Your task to perform on an android device: Show me recent news Image 0: 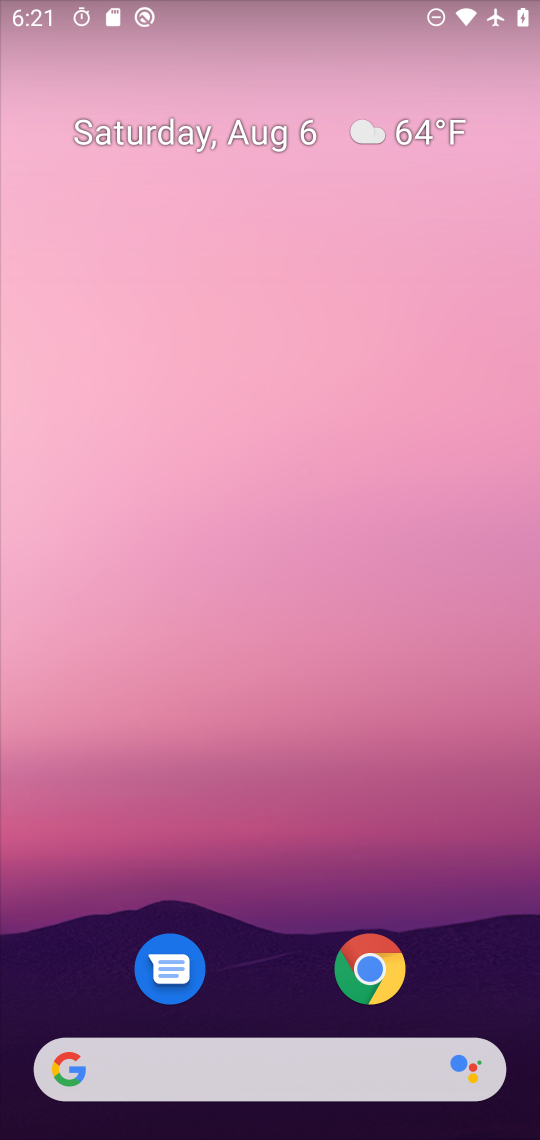
Step 0: press home button
Your task to perform on an android device: Show me recent news Image 1: 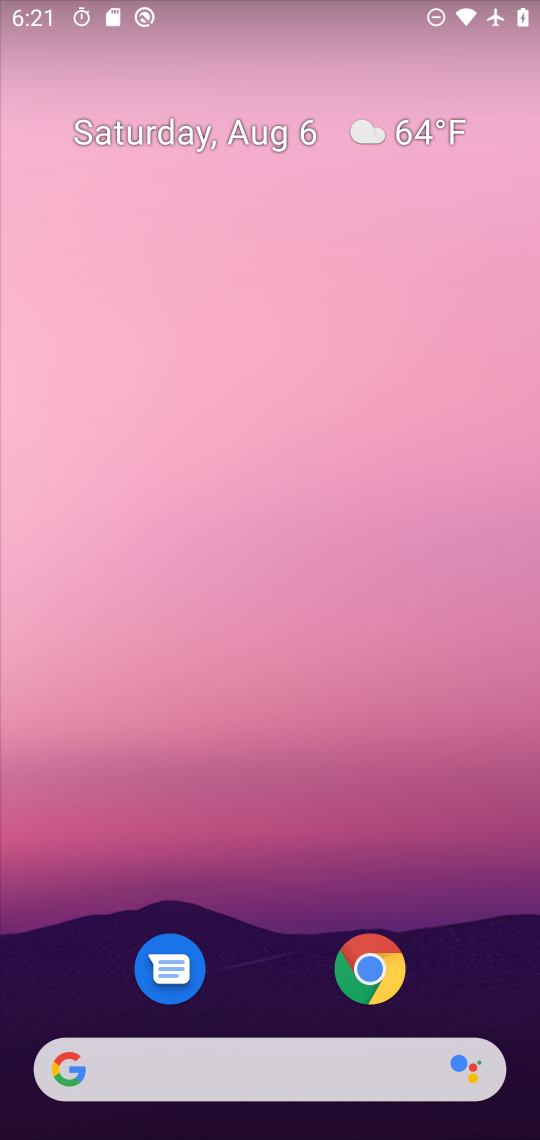
Step 1: click (59, 1068)
Your task to perform on an android device: Show me recent news Image 2: 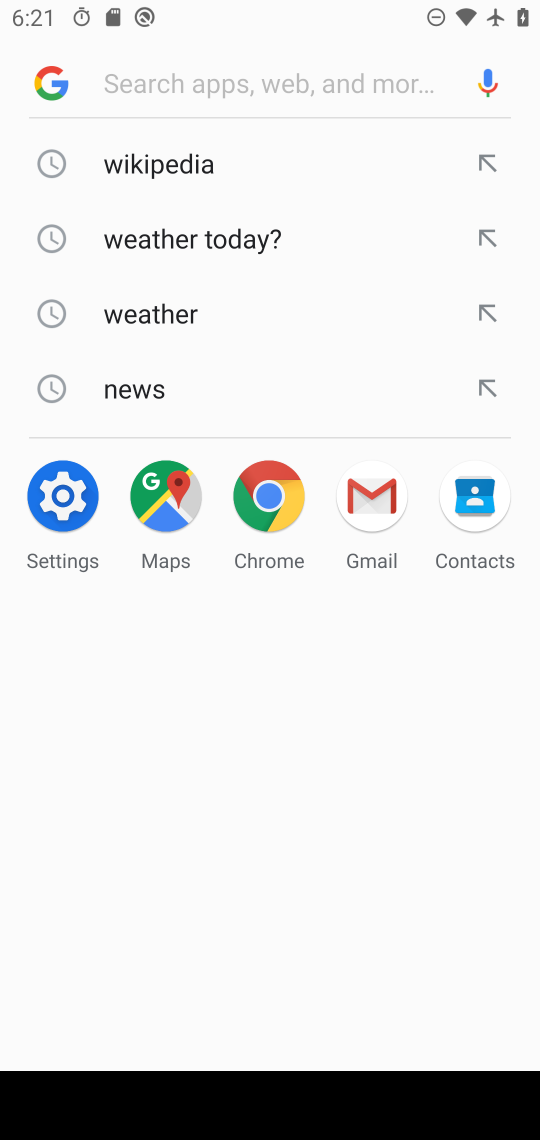
Step 2: type "recent news"
Your task to perform on an android device: Show me recent news Image 3: 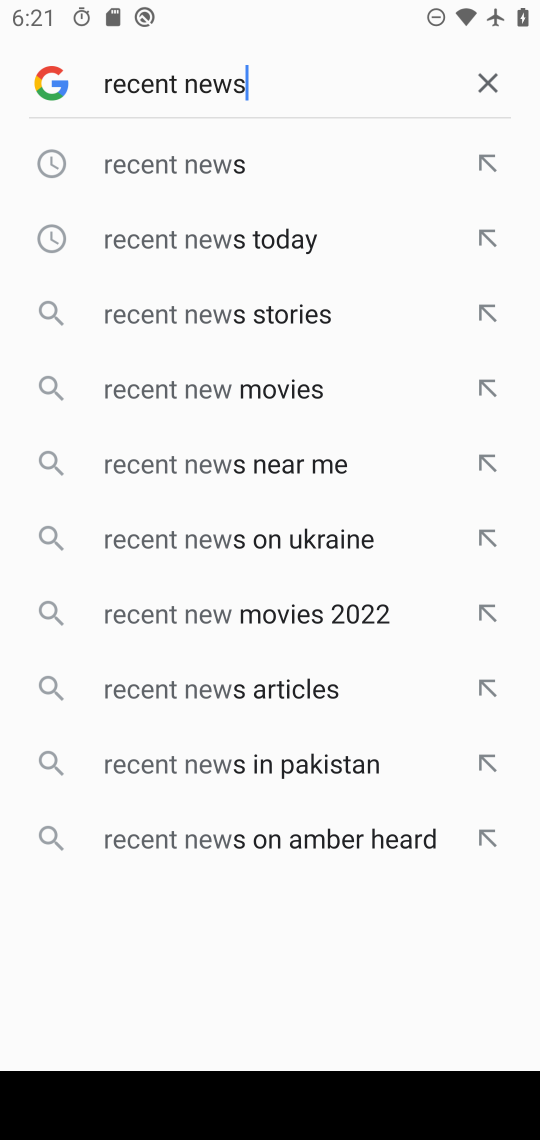
Step 3: press enter
Your task to perform on an android device: Show me recent news Image 4: 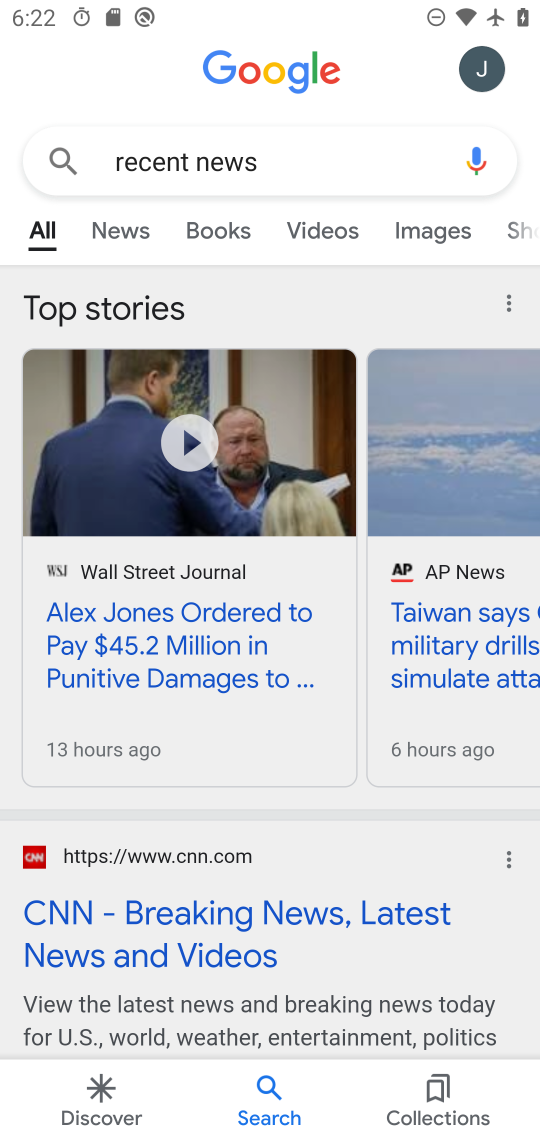
Step 4: task complete